Your task to perform on an android device: Is it going to rain today? Image 0: 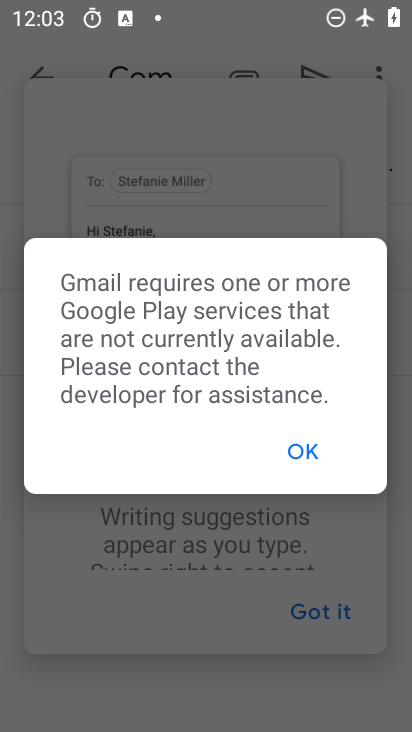
Step 0: press home button
Your task to perform on an android device: Is it going to rain today? Image 1: 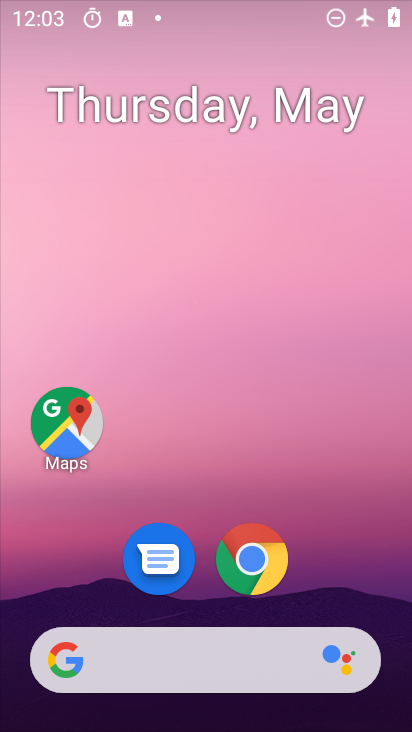
Step 1: drag from (212, 650) to (280, 141)
Your task to perform on an android device: Is it going to rain today? Image 2: 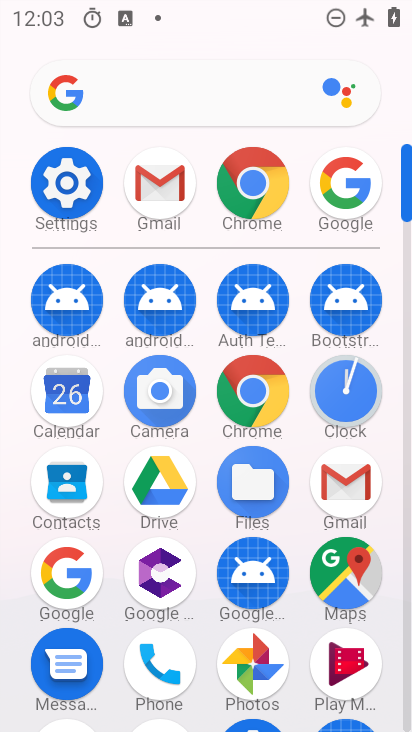
Step 2: click (68, 587)
Your task to perform on an android device: Is it going to rain today? Image 3: 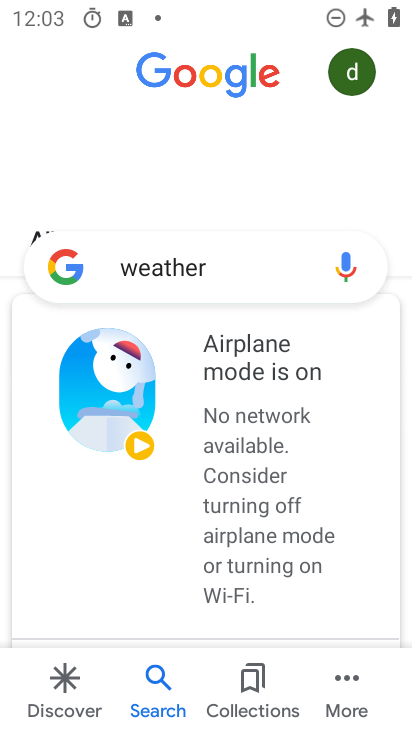
Step 3: task complete